Your task to perform on an android device: add a contact in the contacts app Image 0: 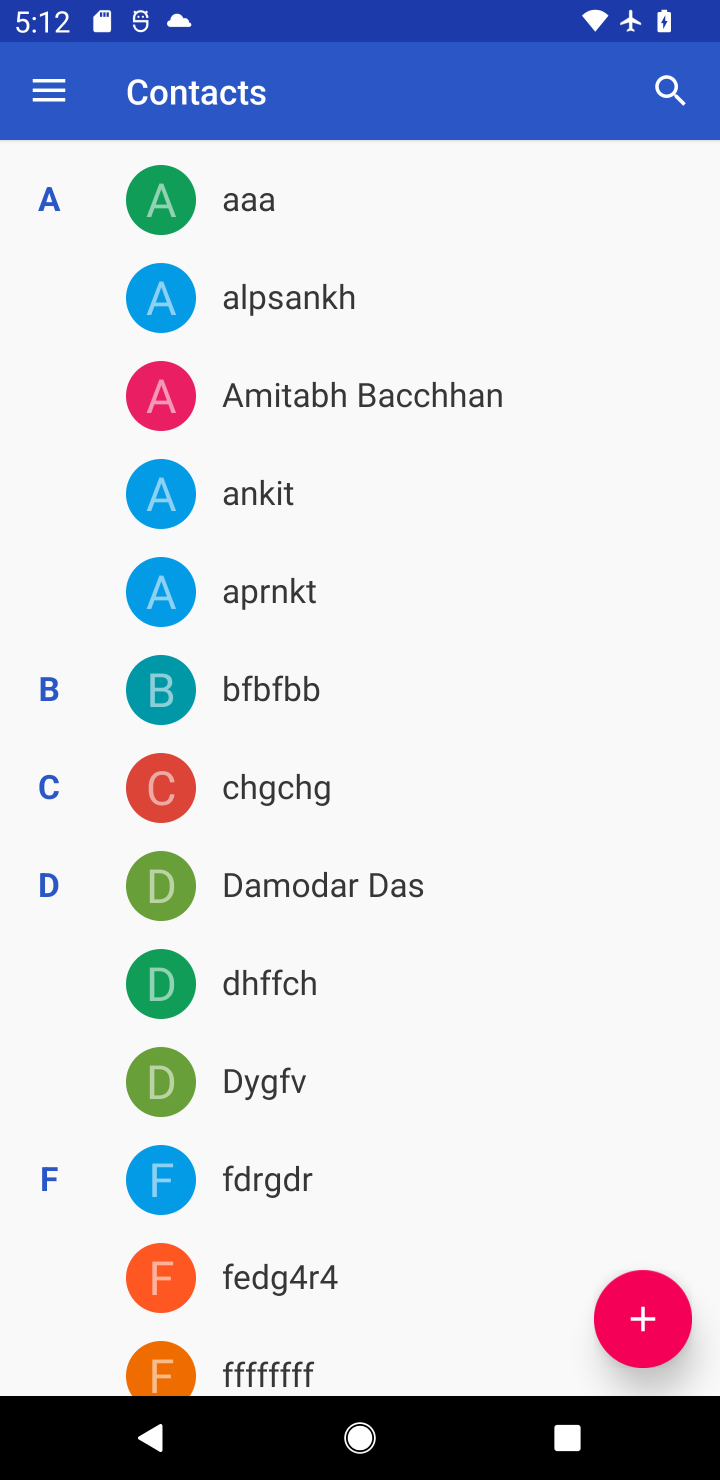
Step 0: click (633, 1319)
Your task to perform on an android device: add a contact in the contacts app Image 1: 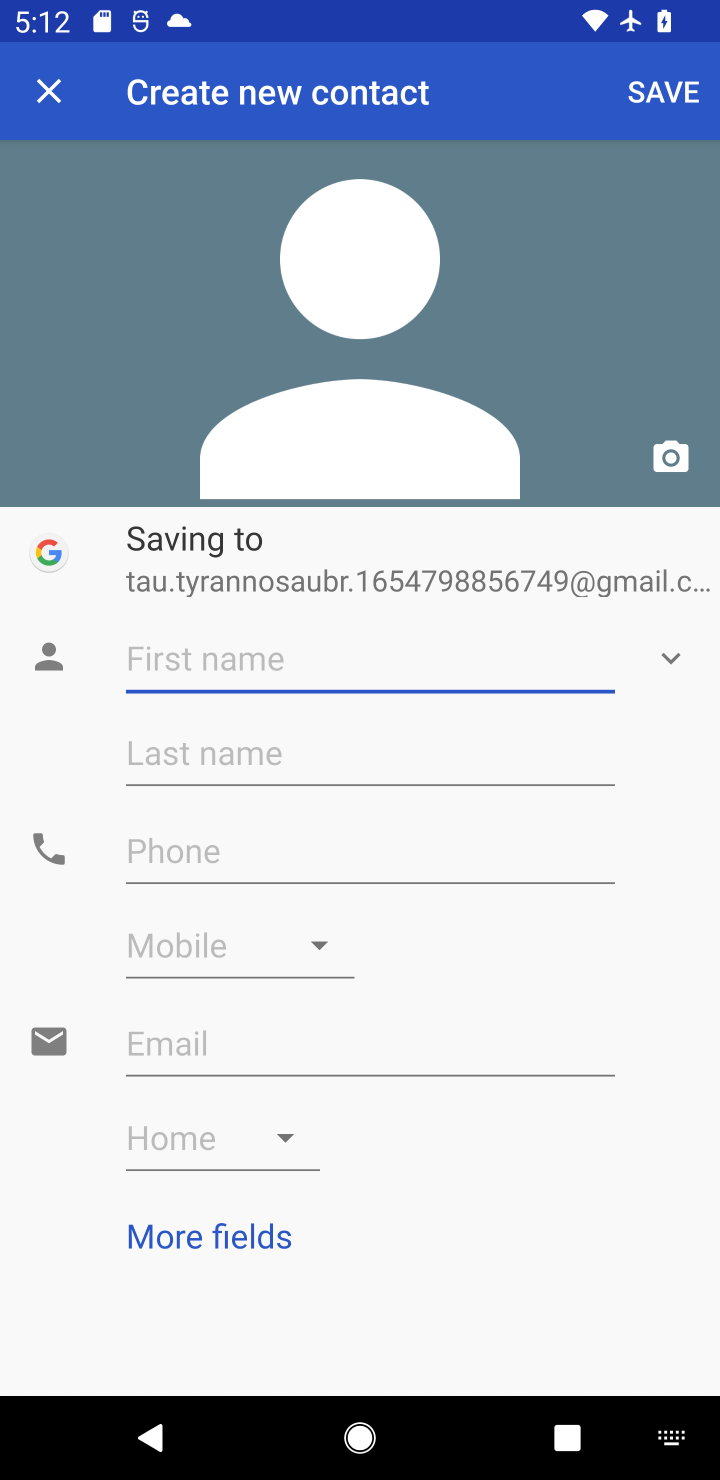
Step 1: type "xcbxgf"
Your task to perform on an android device: add a contact in the contacts app Image 2: 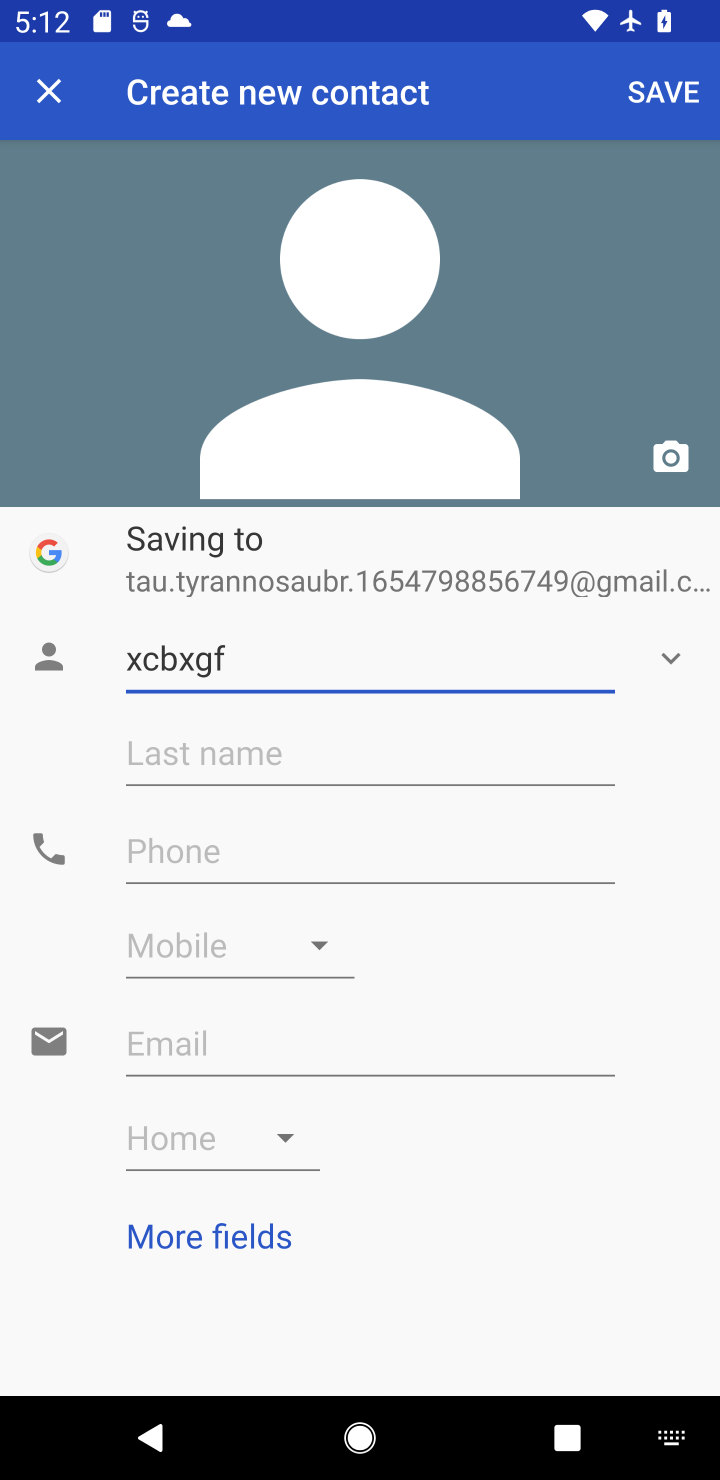
Step 2: click (478, 851)
Your task to perform on an android device: add a contact in the contacts app Image 3: 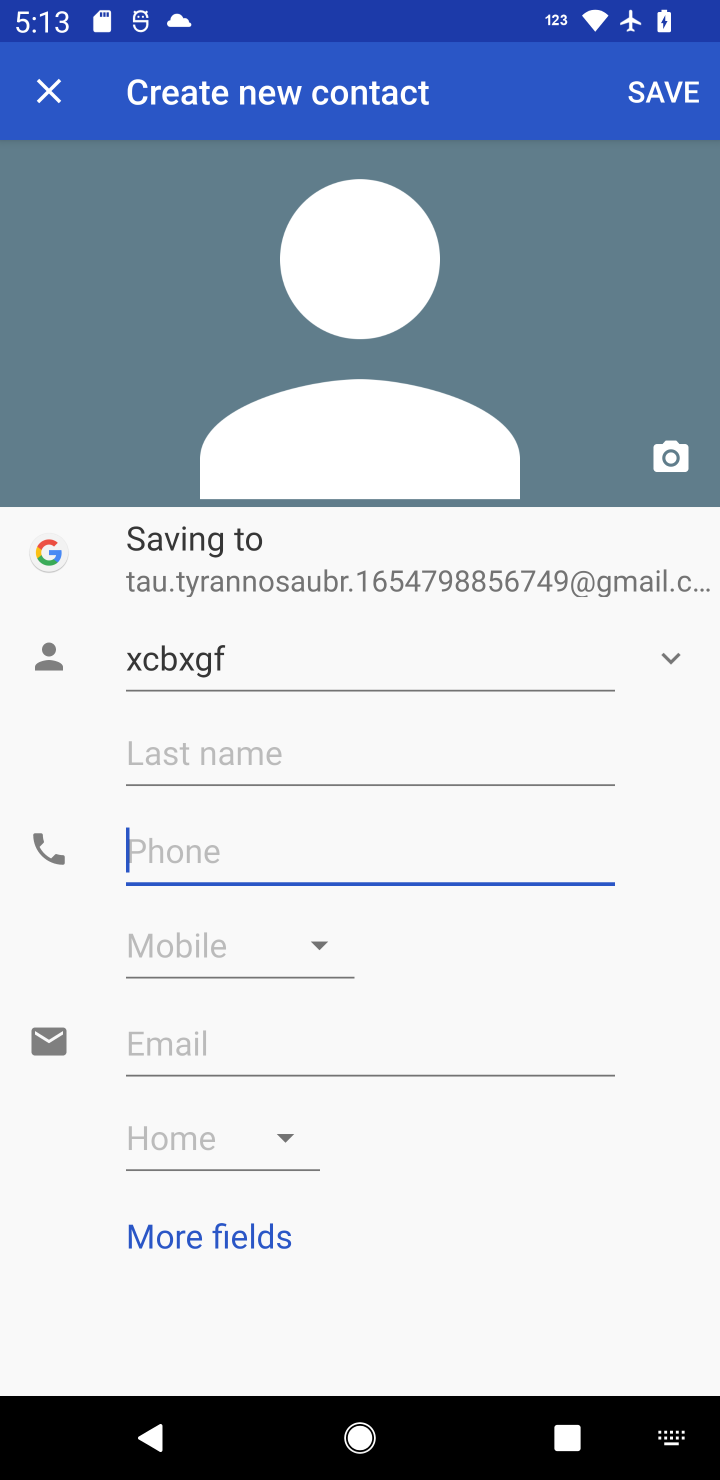
Step 3: type "8567575464"
Your task to perform on an android device: add a contact in the contacts app Image 4: 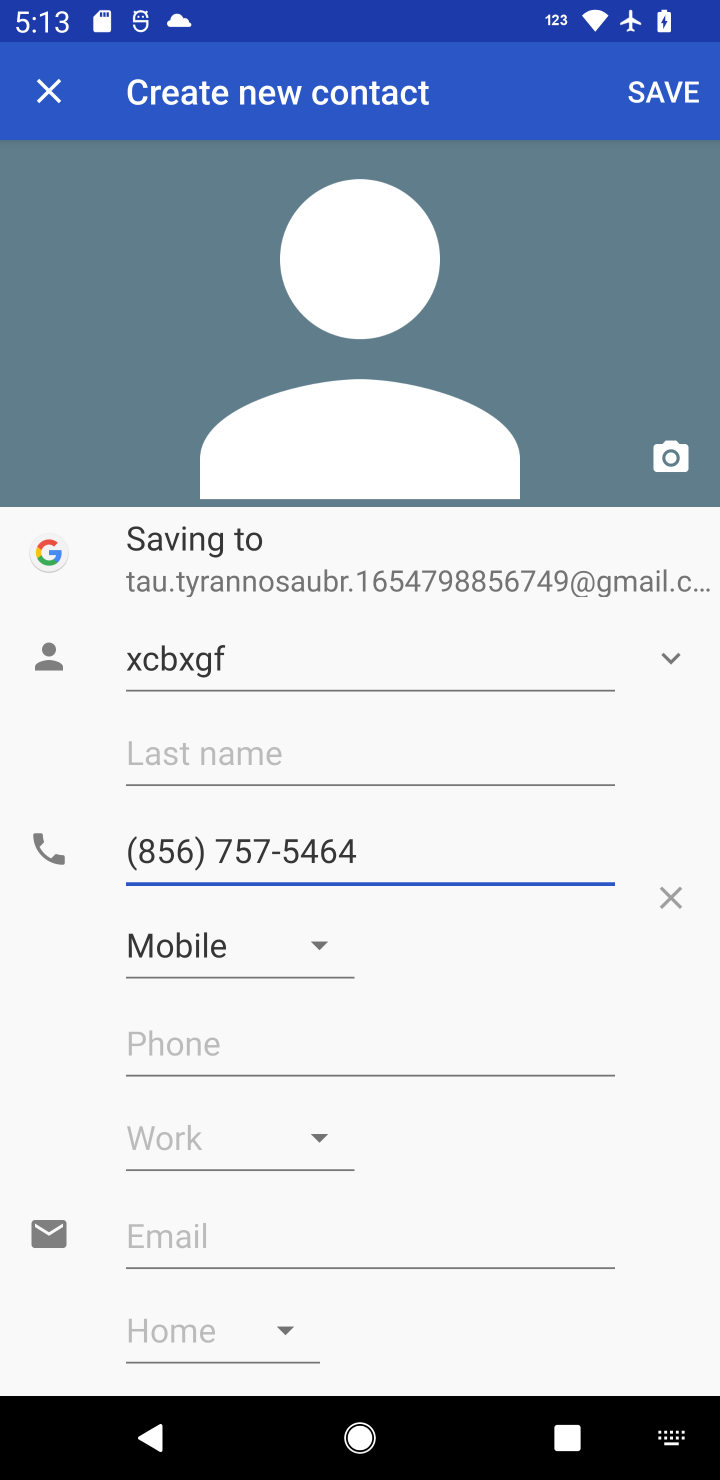
Step 4: click (651, 77)
Your task to perform on an android device: add a contact in the contacts app Image 5: 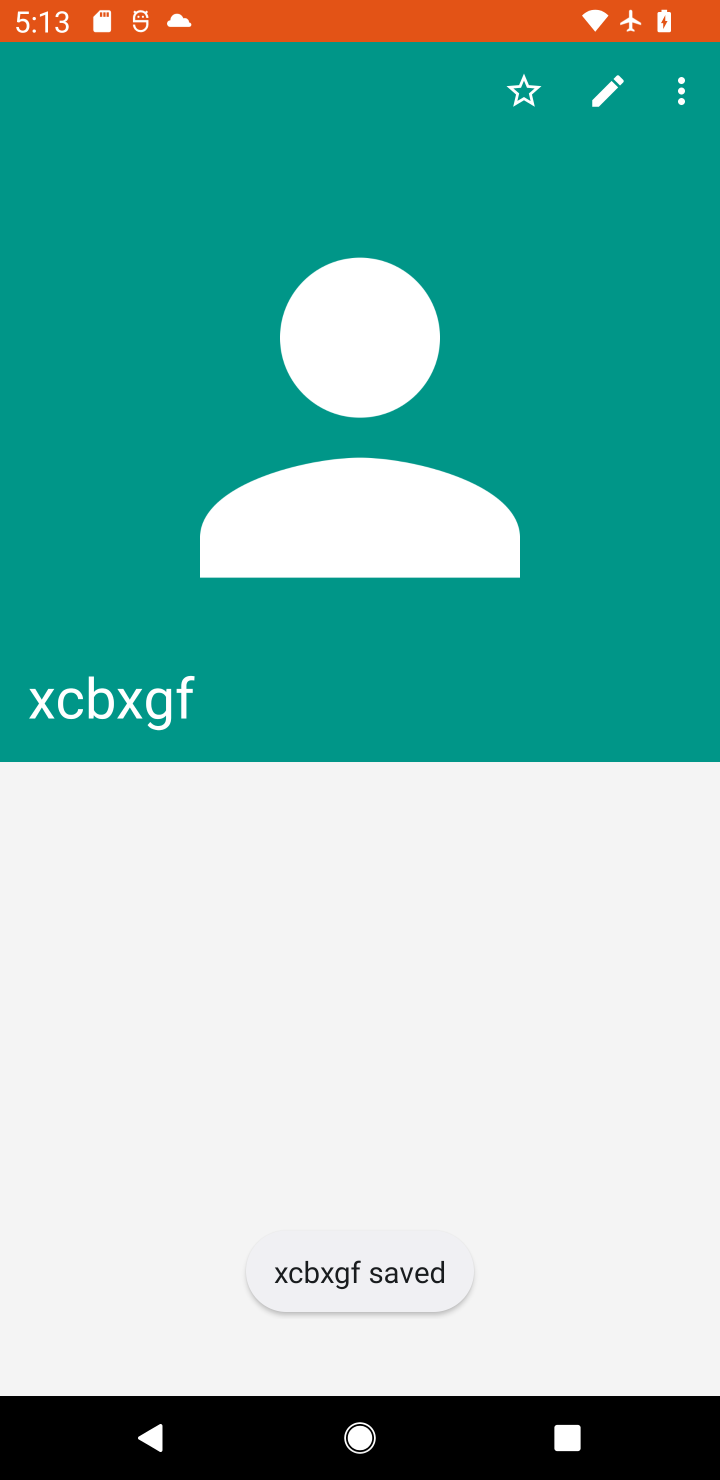
Step 5: task complete